Your task to perform on an android device: check google app version Image 0: 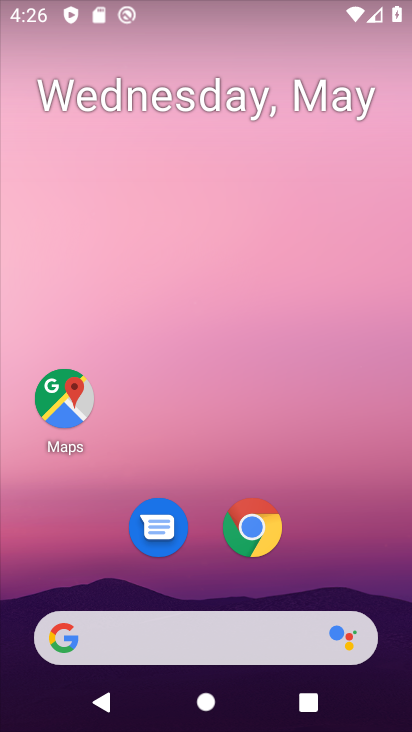
Step 0: drag from (125, 577) to (277, 0)
Your task to perform on an android device: check google app version Image 1: 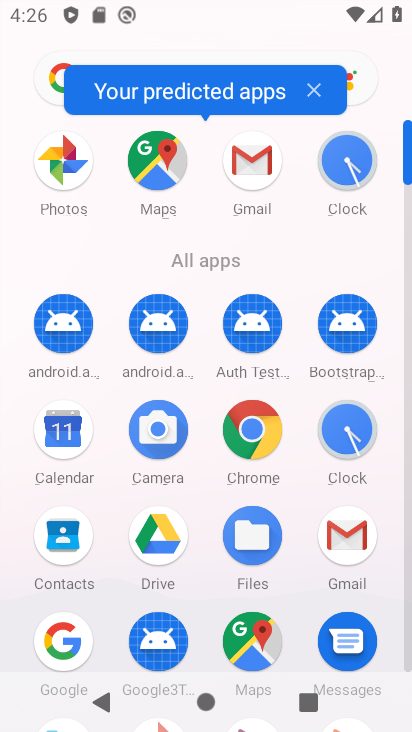
Step 1: drag from (191, 679) to (291, 333)
Your task to perform on an android device: check google app version Image 2: 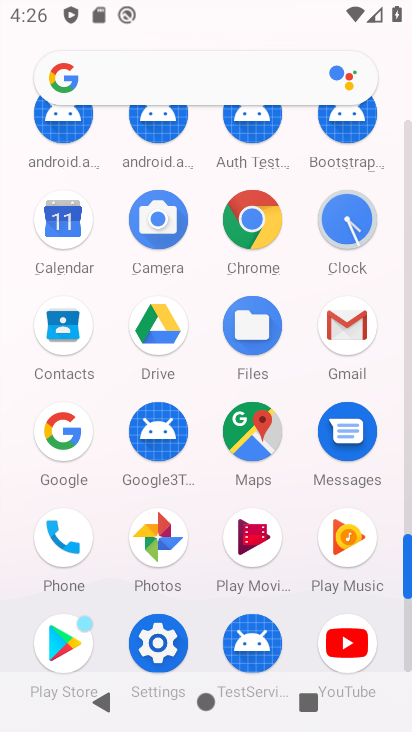
Step 2: click (170, 653)
Your task to perform on an android device: check google app version Image 3: 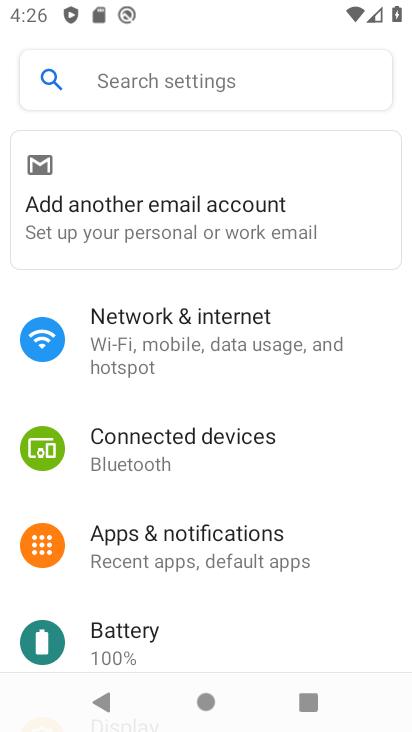
Step 3: click (164, 558)
Your task to perform on an android device: check google app version Image 4: 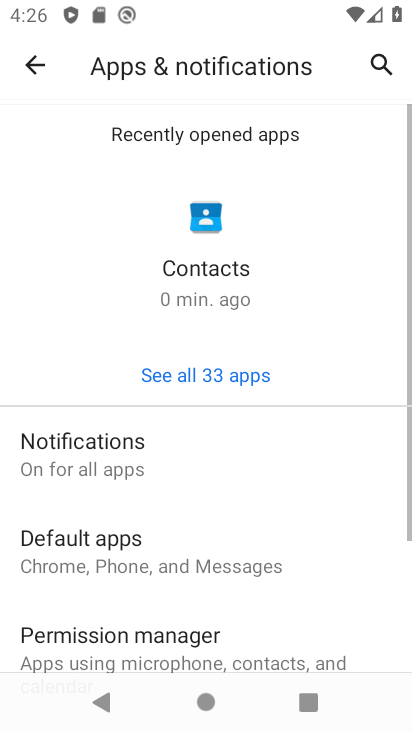
Step 4: click (220, 376)
Your task to perform on an android device: check google app version Image 5: 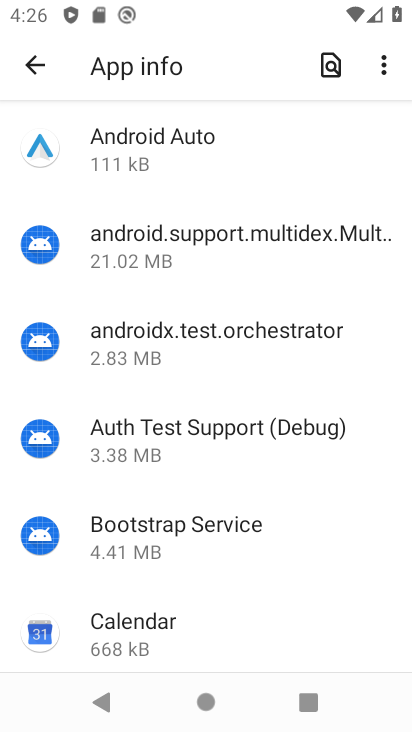
Step 5: drag from (185, 610) to (326, 107)
Your task to perform on an android device: check google app version Image 6: 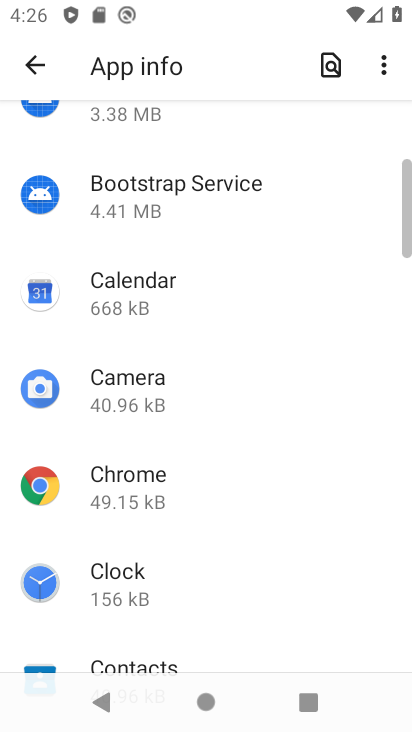
Step 6: drag from (162, 592) to (331, 177)
Your task to perform on an android device: check google app version Image 7: 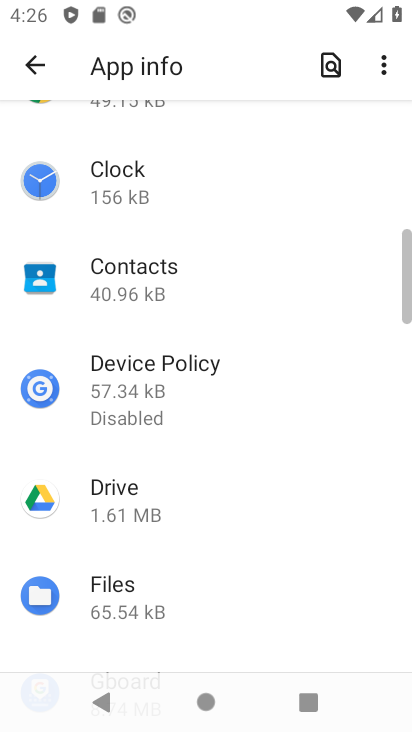
Step 7: drag from (214, 609) to (323, 258)
Your task to perform on an android device: check google app version Image 8: 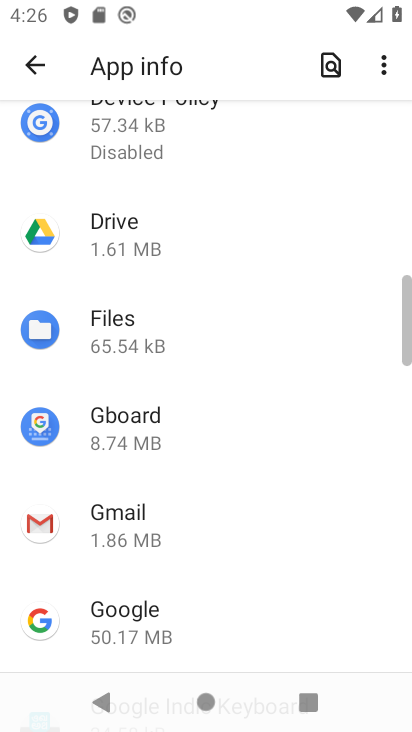
Step 8: click (183, 616)
Your task to perform on an android device: check google app version Image 9: 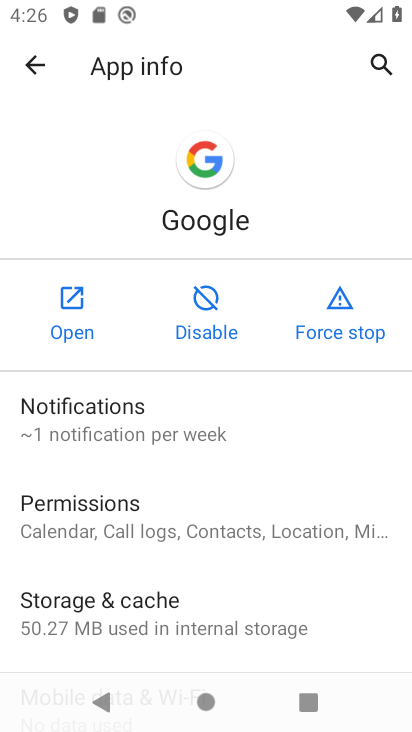
Step 9: drag from (152, 667) to (285, 287)
Your task to perform on an android device: check google app version Image 10: 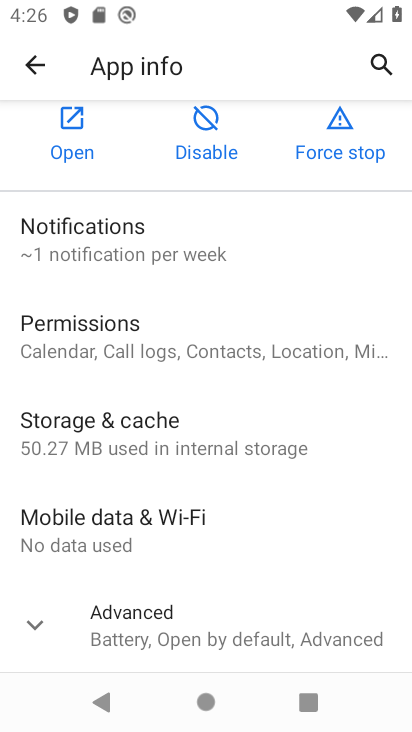
Step 10: click (166, 617)
Your task to perform on an android device: check google app version Image 11: 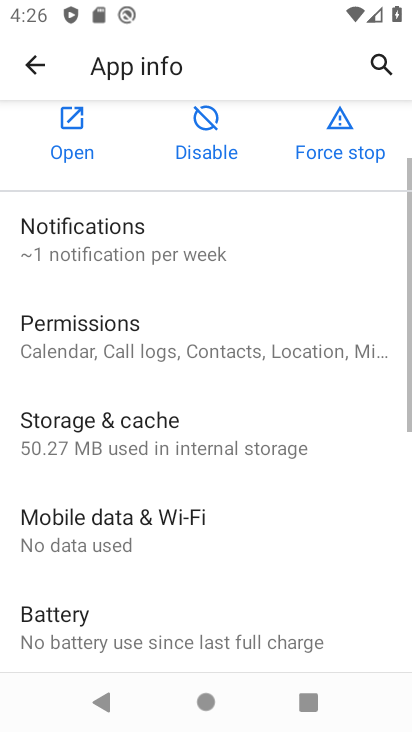
Step 11: task complete